Your task to perform on an android device: Open Chrome and go to settings Image 0: 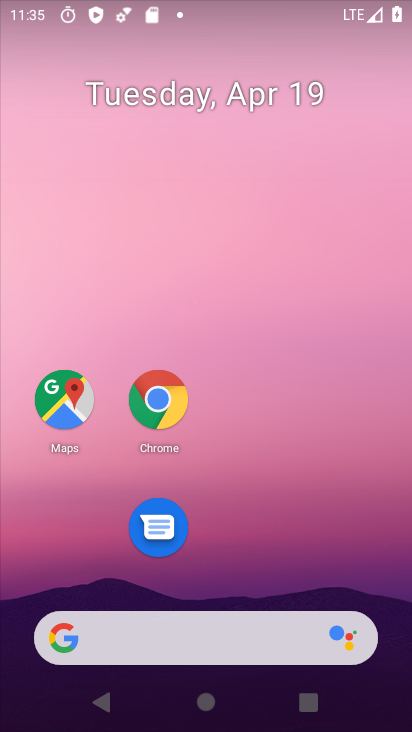
Step 0: drag from (250, 668) to (183, 134)
Your task to perform on an android device: Open Chrome and go to settings Image 1: 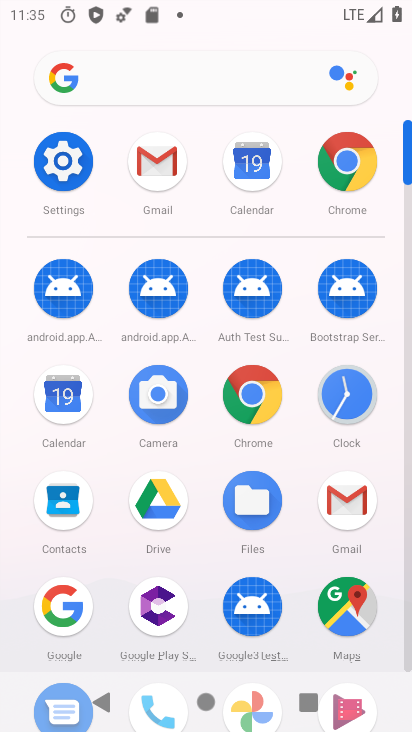
Step 1: click (338, 159)
Your task to perform on an android device: Open Chrome and go to settings Image 2: 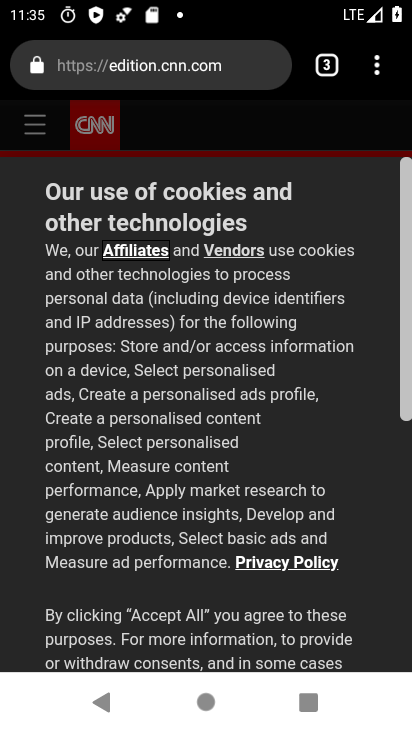
Step 2: click (374, 62)
Your task to perform on an android device: Open Chrome and go to settings Image 3: 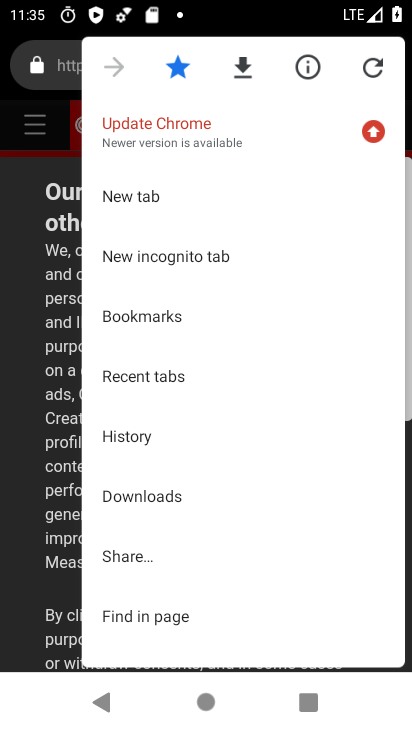
Step 3: drag from (173, 540) to (183, 345)
Your task to perform on an android device: Open Chrome and go to settings Image 4: 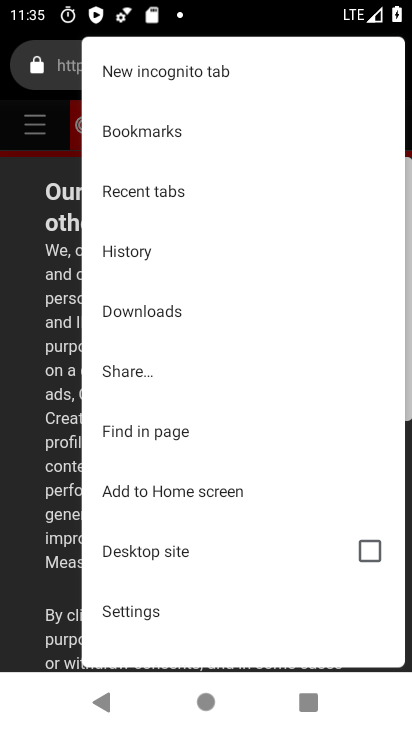
Step 4: click (117, 605)
Your task to perform on an android device: Open Chrome and go to settings Image 5: 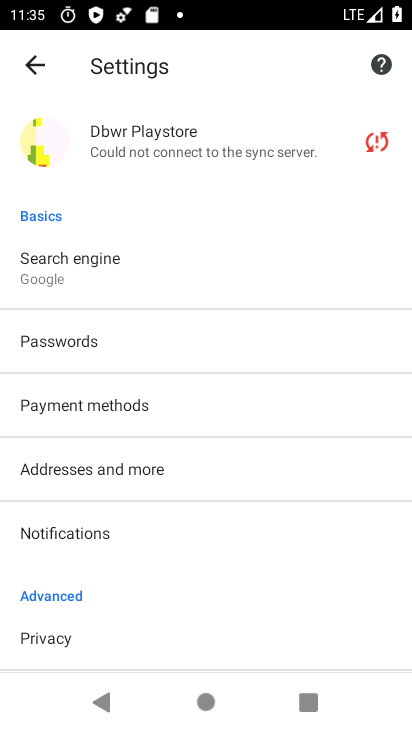
Step 5: task complete